Your task to perform on an android device: check out phone information Image 0: 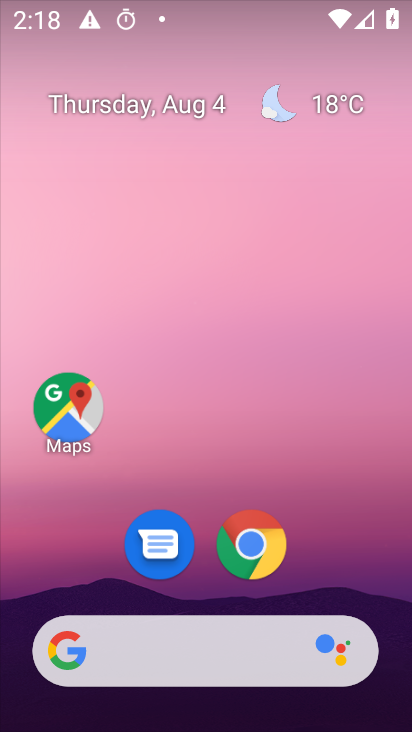
Step 0: click (63, 662)
Your task to perform on an android device: check out phone information Image 1: 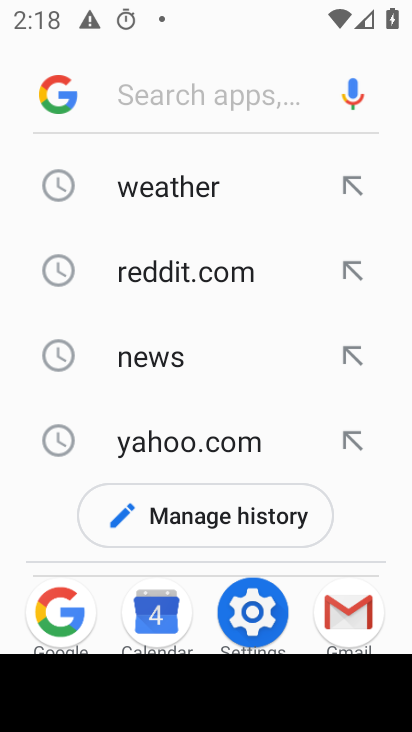
Step 1: press back button
Your task to perform on an android device: check out phone information Image 2: 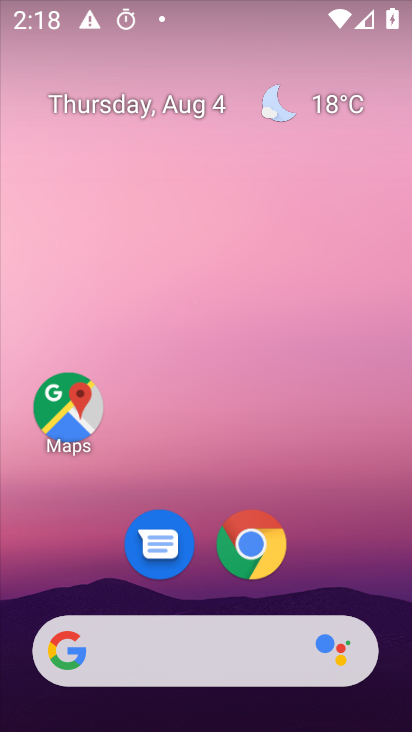
Step 2: drag from (393, 714) to (293, 108)
Your task to perform on an android device: check out phone information Image 3: 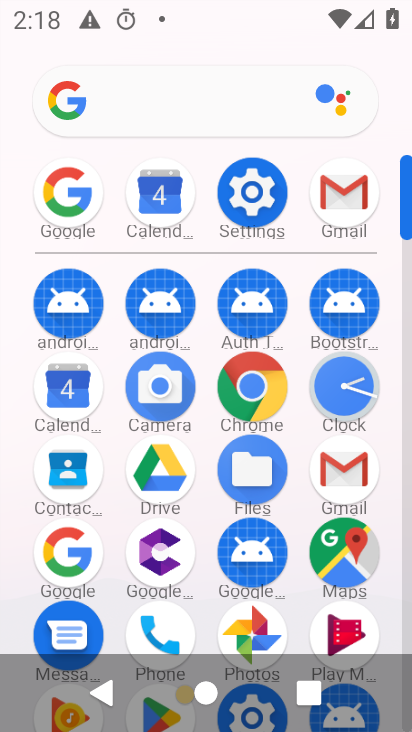
Step 3: click (259, 219)
Your task to perform on an android device: check out phone information Image 4: 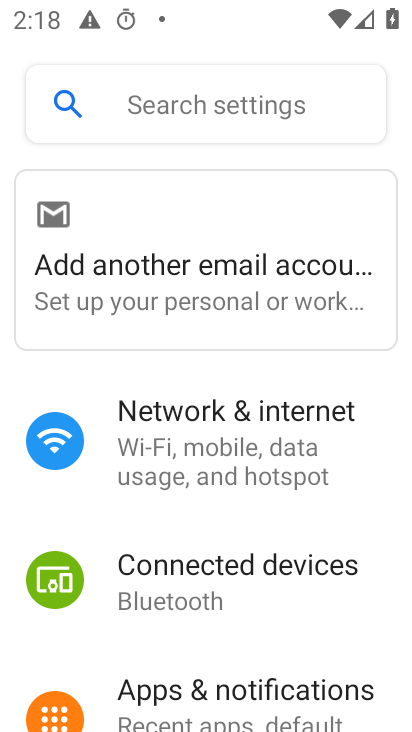
Step 4: drag from (345, 651) to (343, 262)
Your task to perform on an android device: check out phone information Image 5: 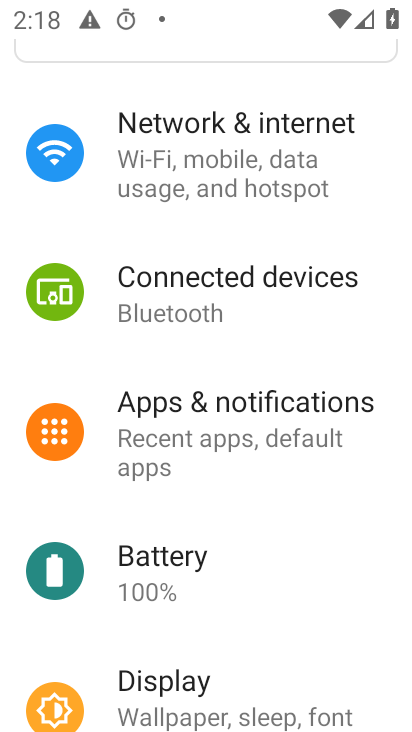
Step 5: drag from (263, 648) to (236, 279)
Your task to perform on an android device: check out phone information Image 6: 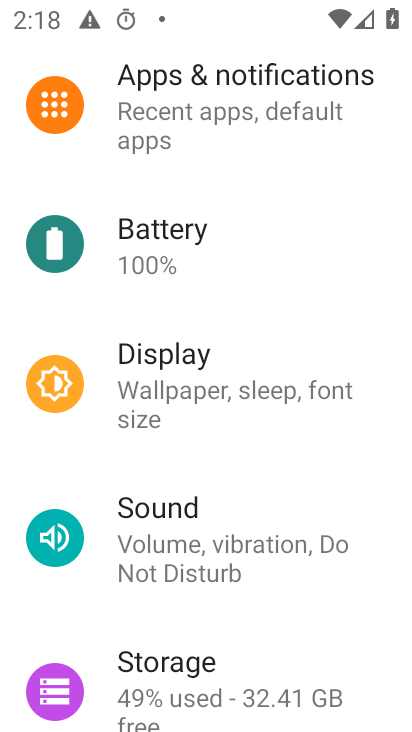
Step 6: drag from (252, 672) to (246, 230)
Your task to perform on an android device: check out phone information Image 7: 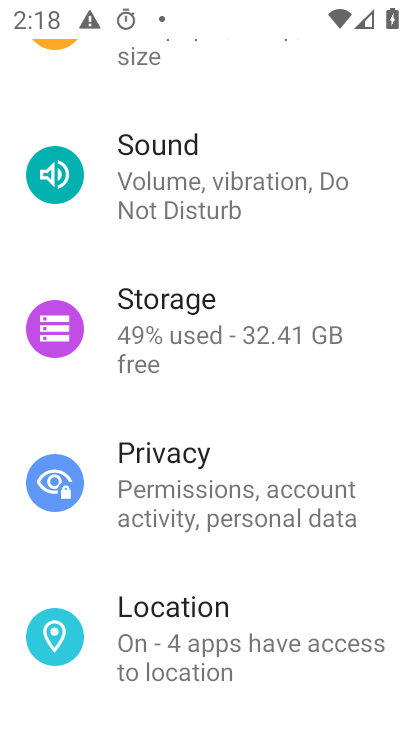
Step 7: drag from (276, 679) to (263, 262)
Your task to perform on an android device: check out phone information Image 8: 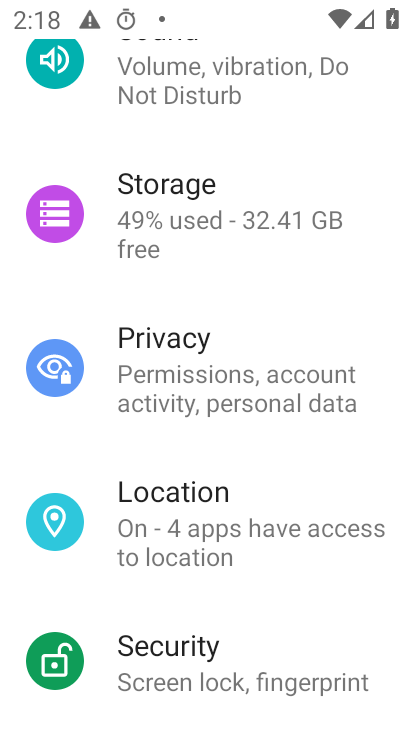
Step 8: drag from (258, 612) to (268, 300)
Your task to perform on an android device: check out phone information Image 9: 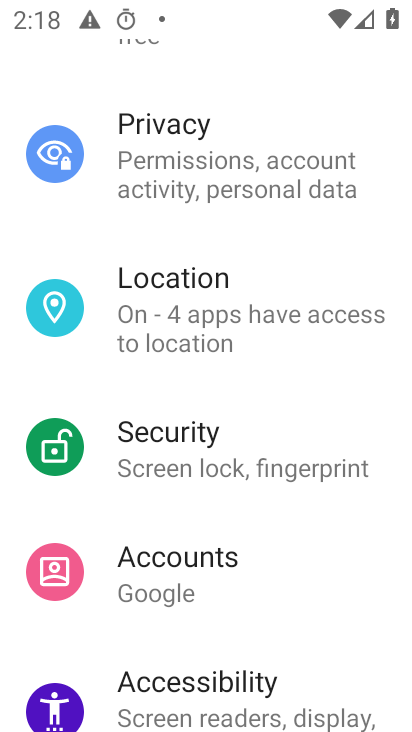
Step 9: drag from (278, 687) to (285, 244)
Your task to perform on an android device: check out phone information Image 10: 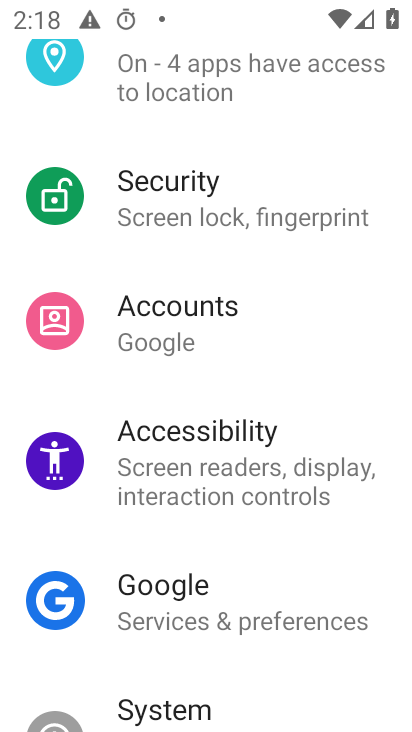
Step 10: drag from (342, 527) to (327, 236)
Your task to perform on an android device: check out phone information Image 11: 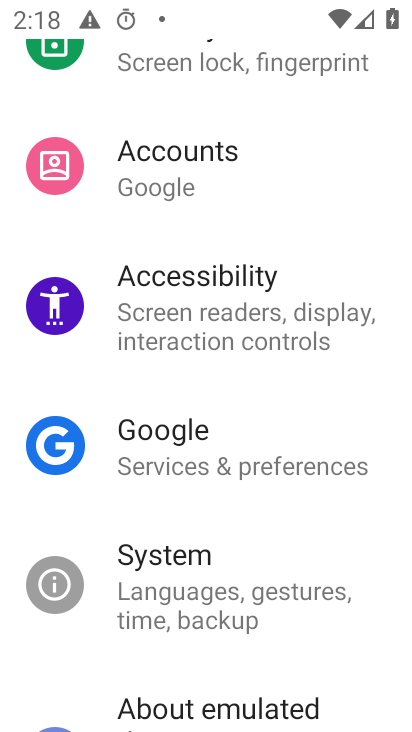
Step 11: drag from (273, 677) to (254, 269)
Your task to perform on an android device: check out phone information Image 12: 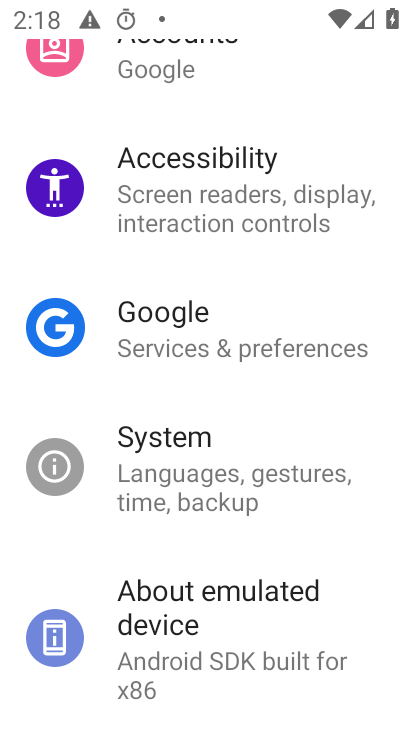
Step 12: drag from (277, 688) to (302, 357)
Your task to perform on an android device: check out phone information Image 13: 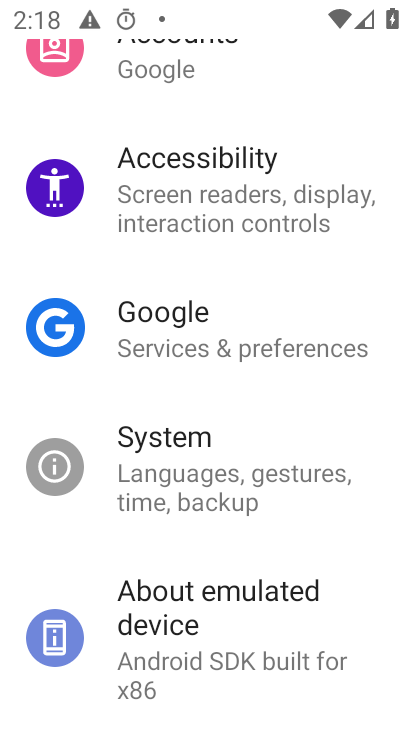
Step 13: click (157, 629)
Your task to perform on an android device: check out phone information Image 14: 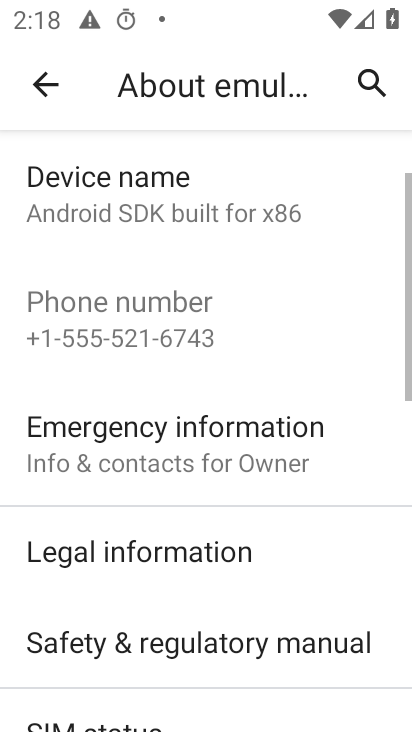
Step 14: task complete